Your task to perform on an android device: What's the top post on reddit today? Image 0: 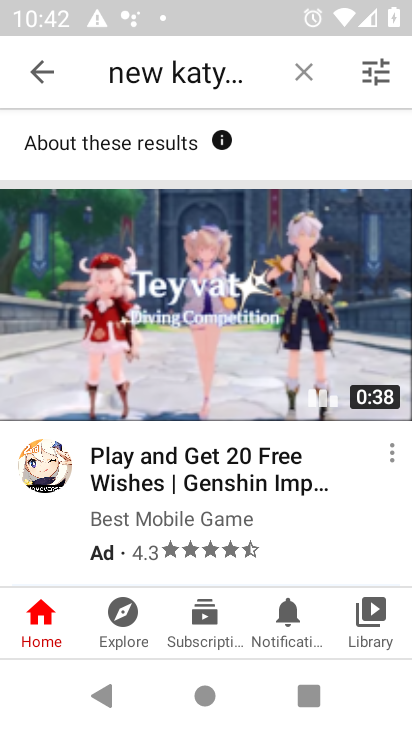
Step 0: press home button
Your task to perform on an android device: What's the top post on reddit today? Image 1: 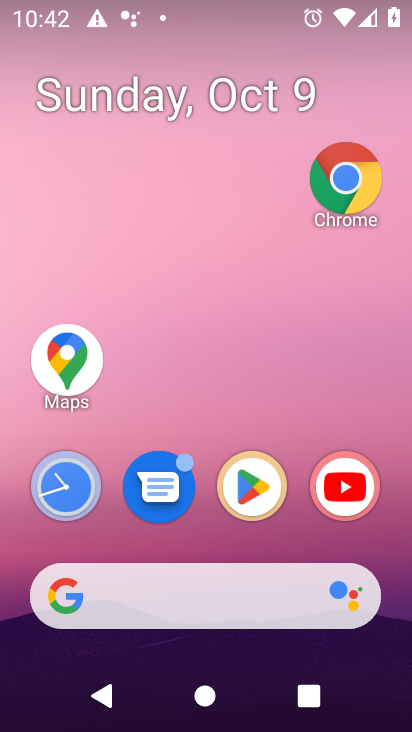
Step 1: drag from (301, 599) to (298, 1)
Your task to perform on an android device: What's the top post on reddit today? Image 2: 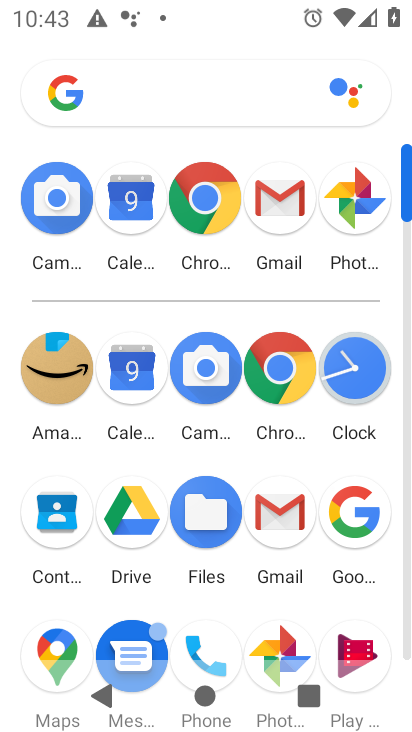
Step 2: click (358, 513)
Your task to perform on an android device: What's the top post on reddit today? Image 3: 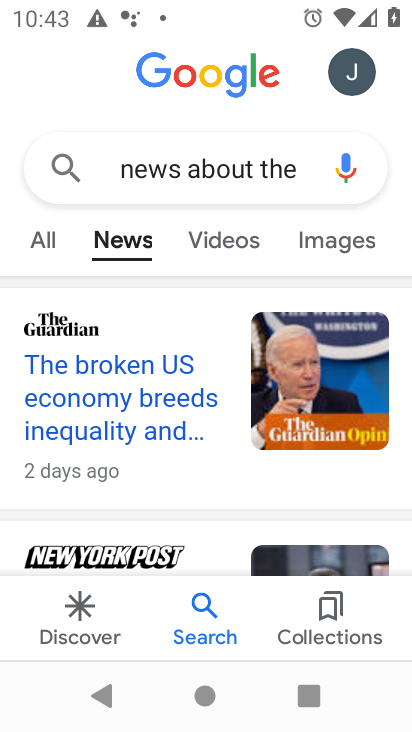
Step 3: click (300, 175)
Your task to perform on an android device: What's the top post on reddit today? Image 4: 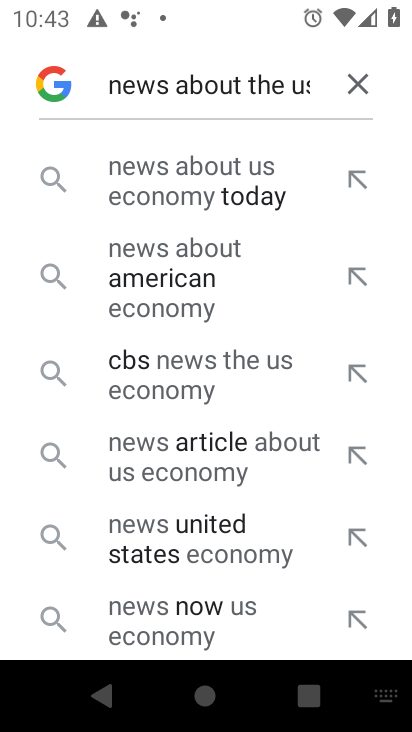
Step 4: click (364, 81)
Your task to perform on an android device: What's the top post on reddit today? Image 5: 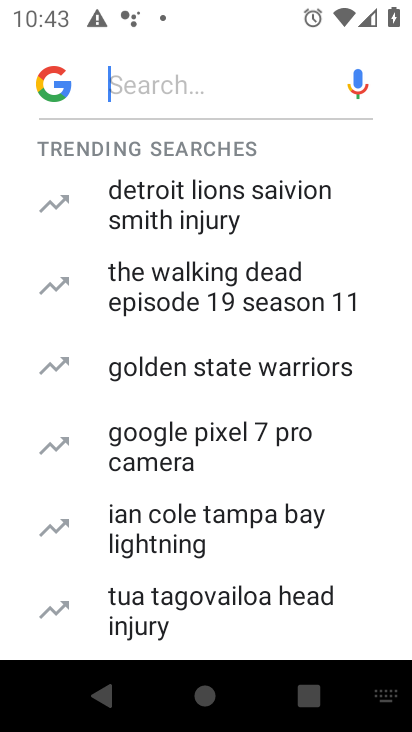
Step 5: type "reddit today"
Your task to perform on an android device: What's the top post on reddit today? Image 6: 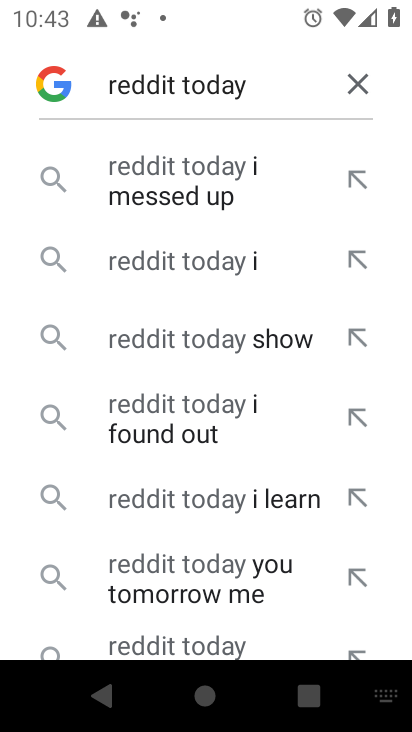
Step 6: click (231, 345)
Your task to perform on an android device: What's the top post on reddit today? Image 7: 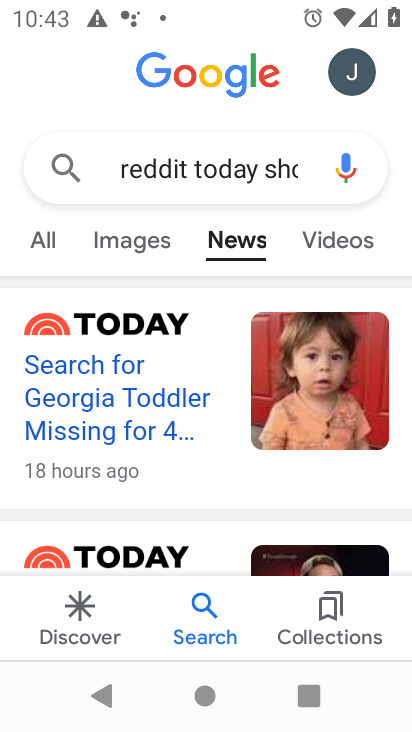
Step 7: click (44, 235)
Your task to perform on an android device: What's the top post on reddit today? Image 8: 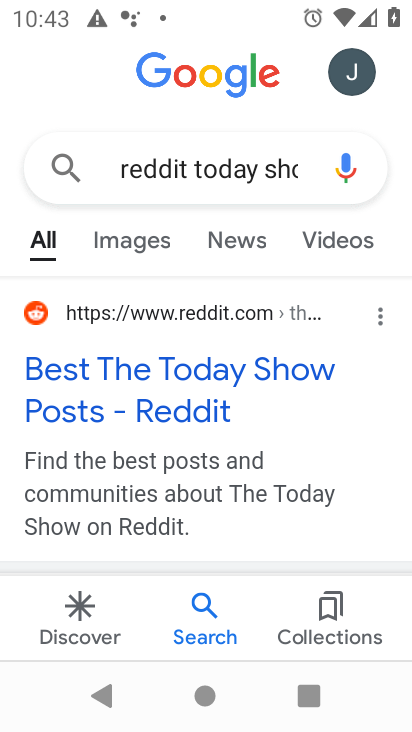
Step 8: click (227, 384)
Your task to perform on an android device: What's the top post on reddit today? Image 9: 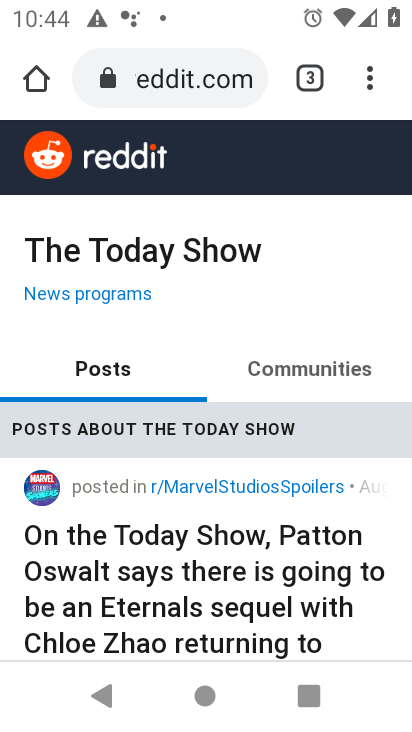
Step 9: task complete